Your task to perform on an android device: Search for "The Dispatcher" by John Scalzi on Goodreads Image 0: 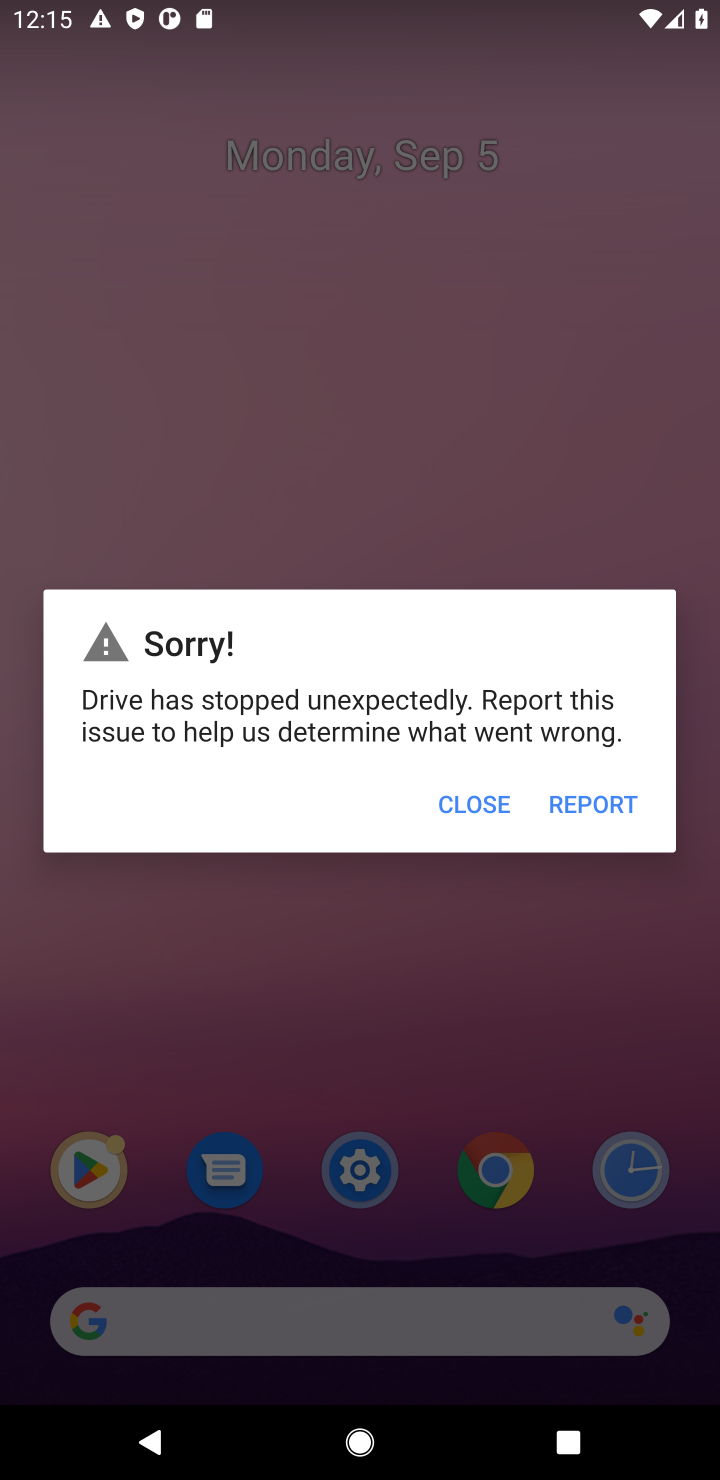
Step 0: click (469, 835)
Your task to perform on an android device: Search for "The Dispatcher" by John Scalzi on Goodreads Image 1: 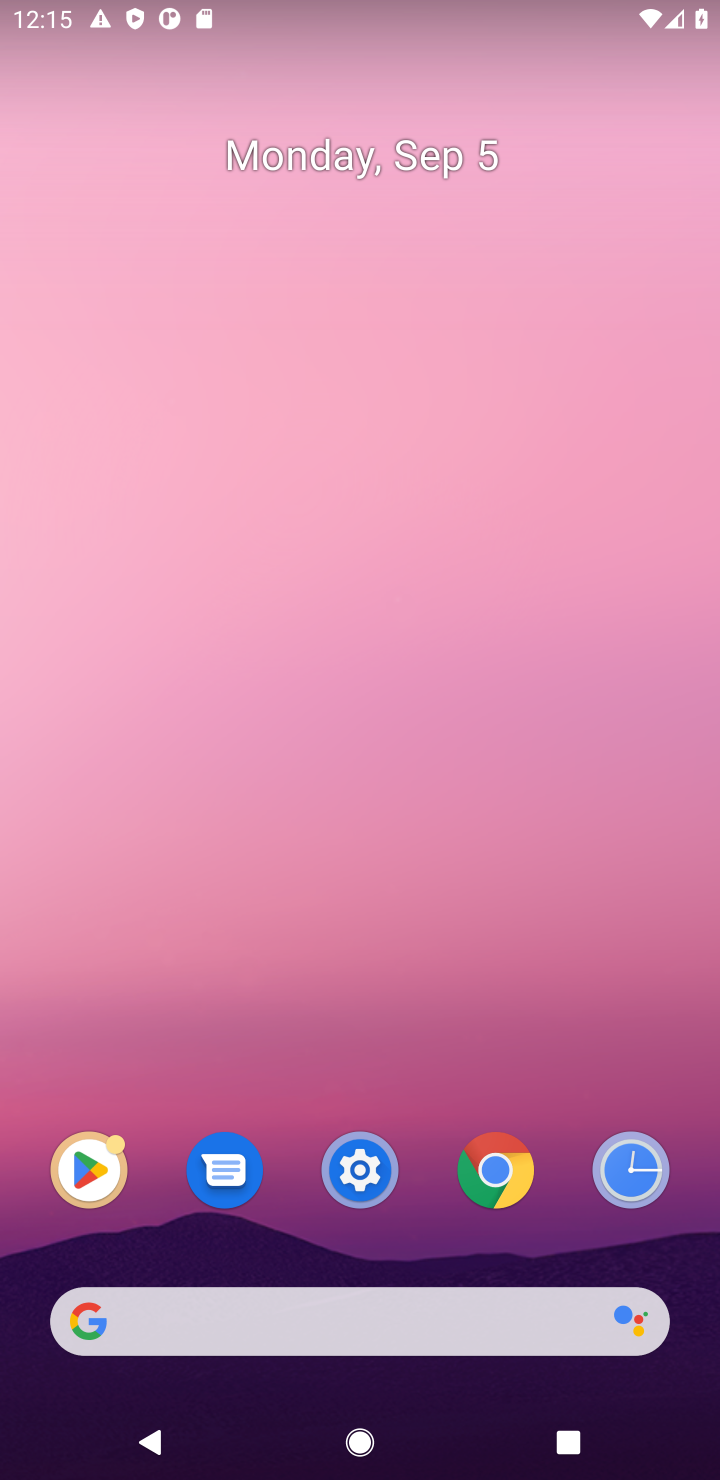
Step 1: click (353, 1326)
Your task to perform on an android device: Search for "The Dispatcher" by John Scalzi on Goodreads Image 2: 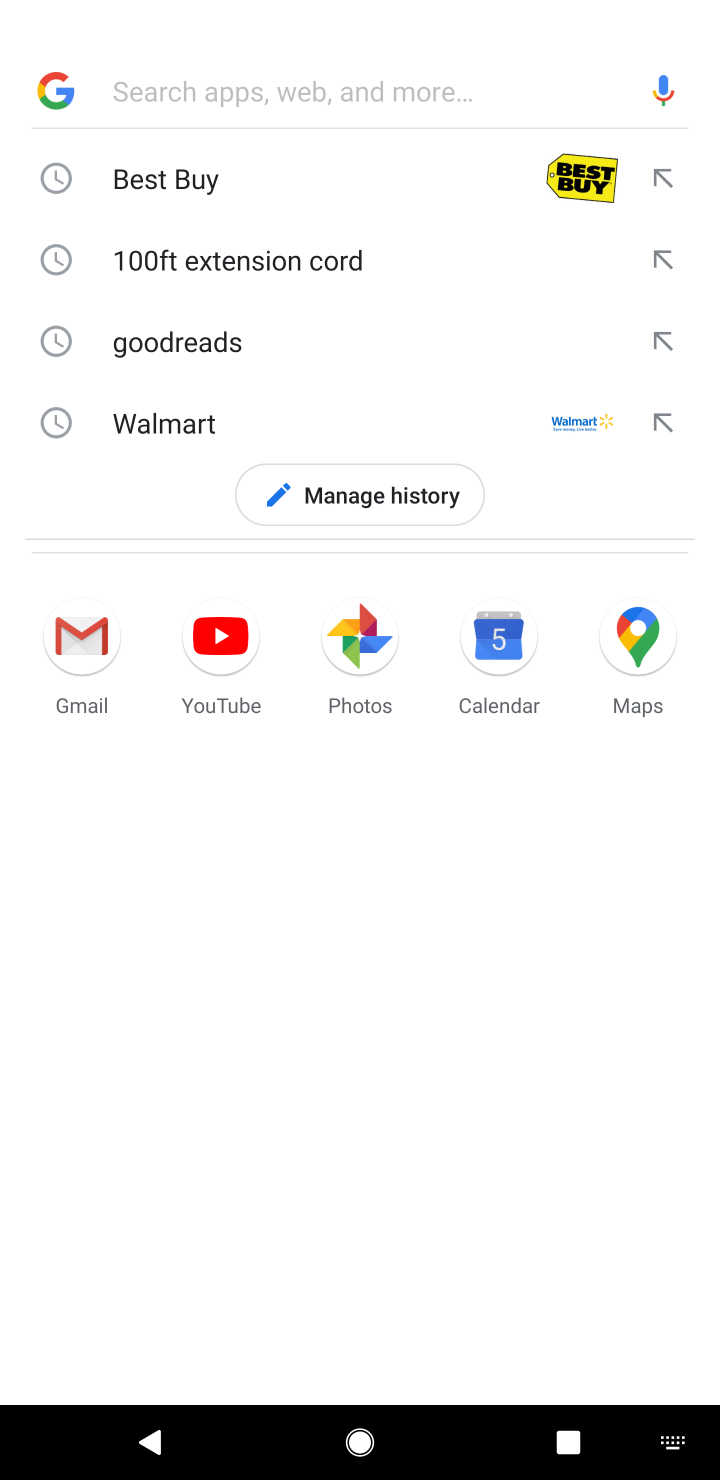
Step 2: type "Goodreads"
Your task to perform on an android device: Search for "The Dispatcher" by John Scalzi on Goodreads Image 3: 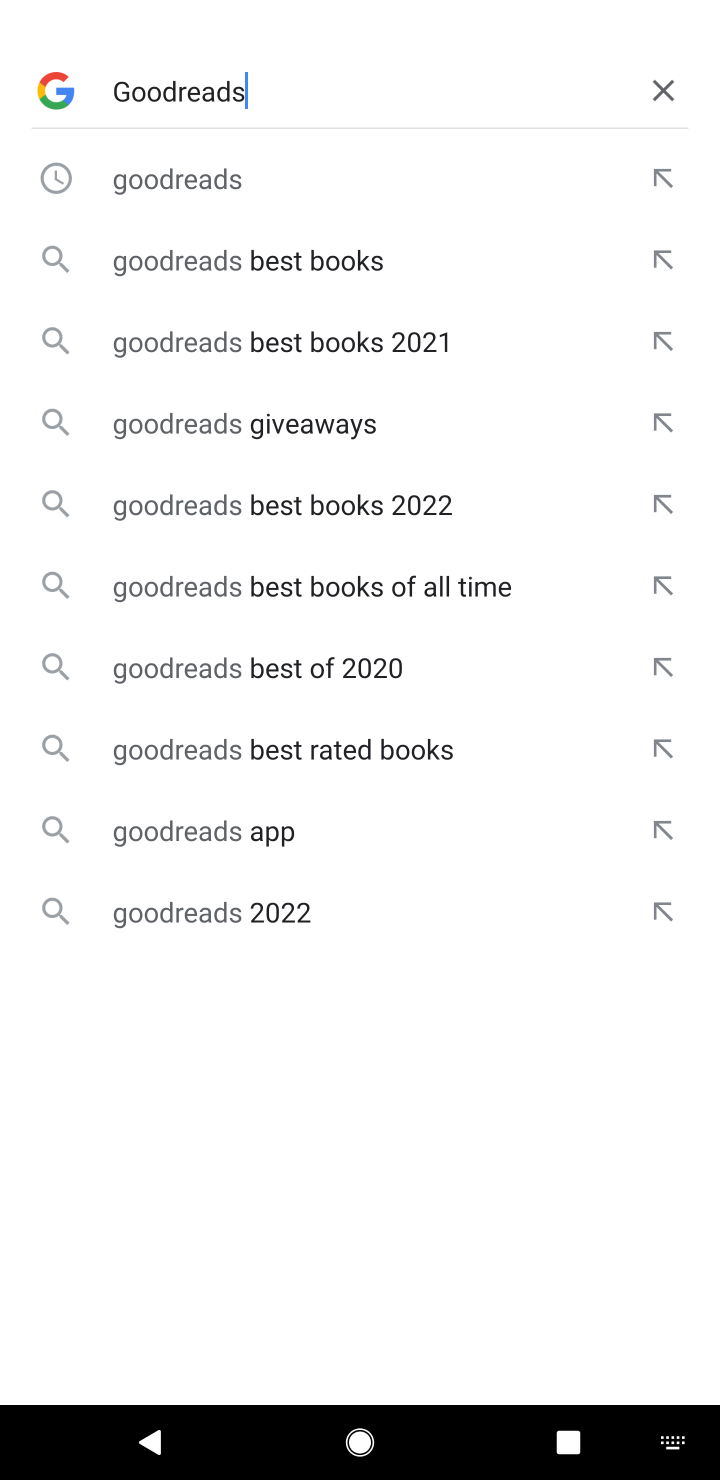
Step 3: click (287, 180)
Your task to perform on an android device: Search for "The Dispatcher" by John Scalzi on Goodreads Image 4: 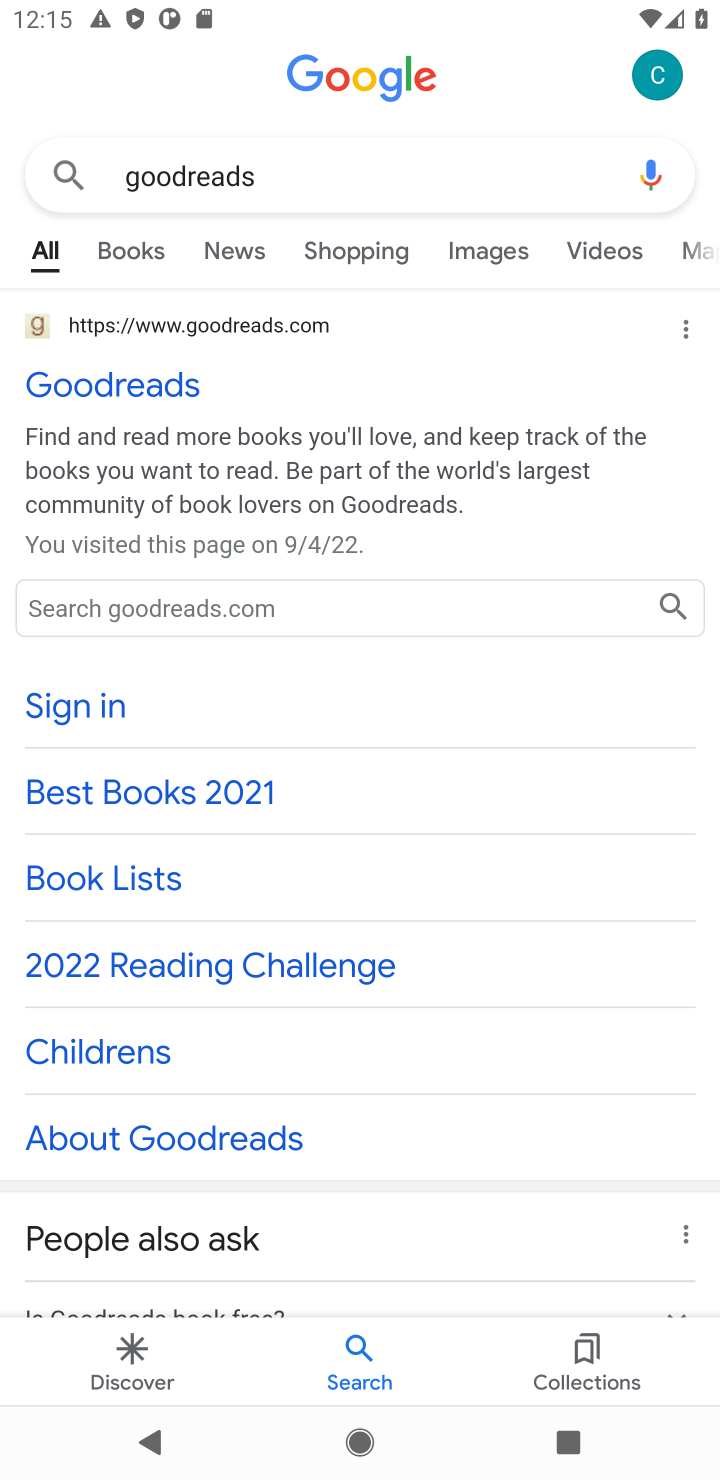
Step 4: click (106, 382)
Your task to perform on an android device: Search for "The Dispatcher" by John Scalzi on Goodreads Image 5: 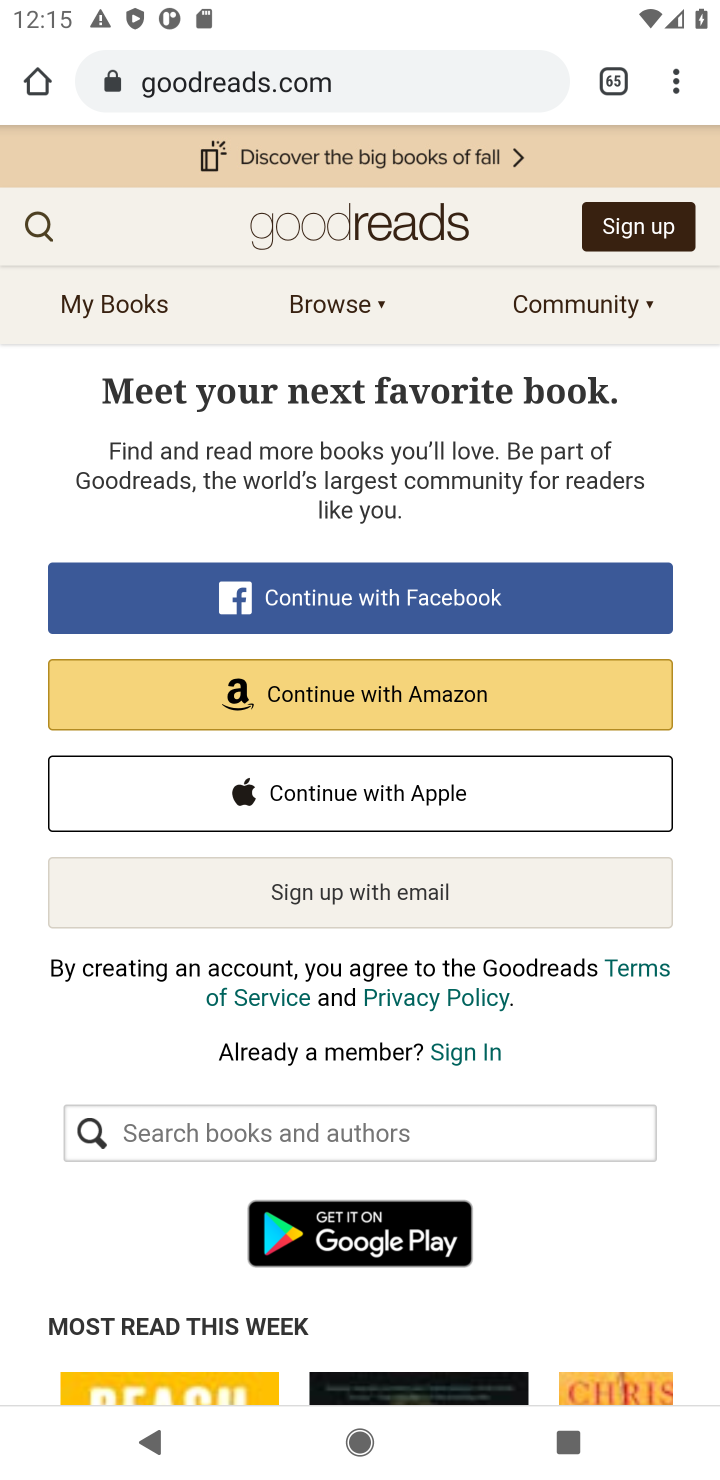
Step 5: click (37, 222)
Your task to perform on an android device: Search for "The Dispatcher" by John Scalzi on Goodreads Image 6: 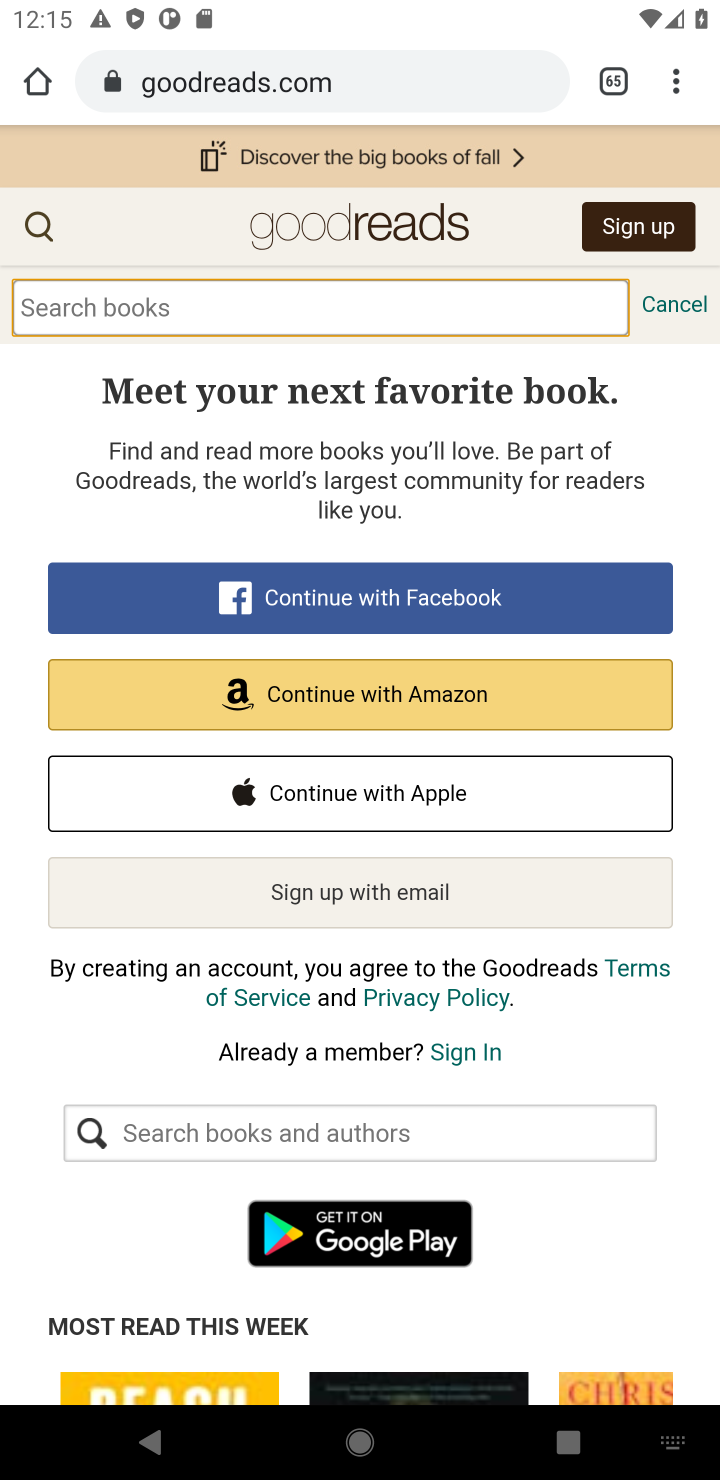
Step 6: click (156, 324)
Your task to perform on an android device: Search for "The Dispatcher" by John Scalzi on Goodreads Image 7: 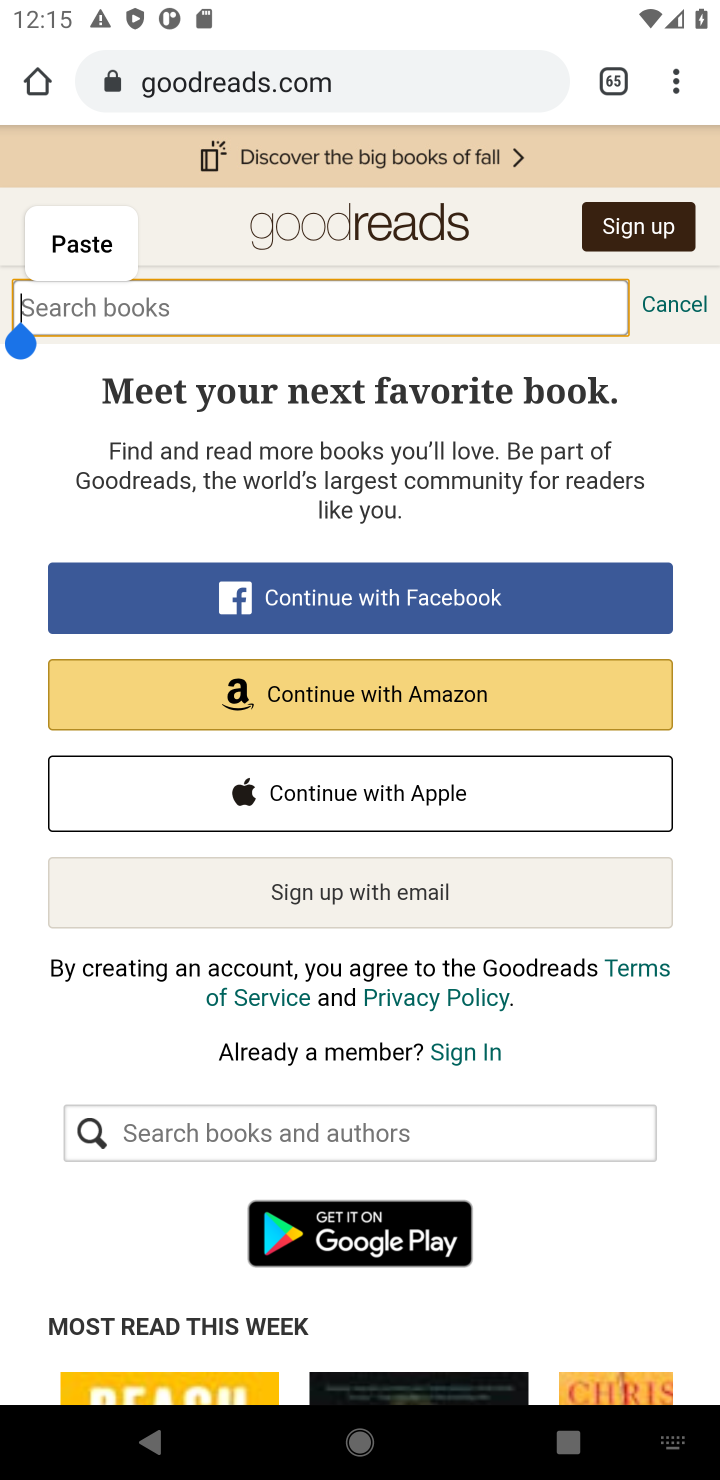
Step 7: type "The Dispatcher"
Your task to perform on an android device: Search for "The Dispatcher" by John Scalzi on Goodreads Image 8: 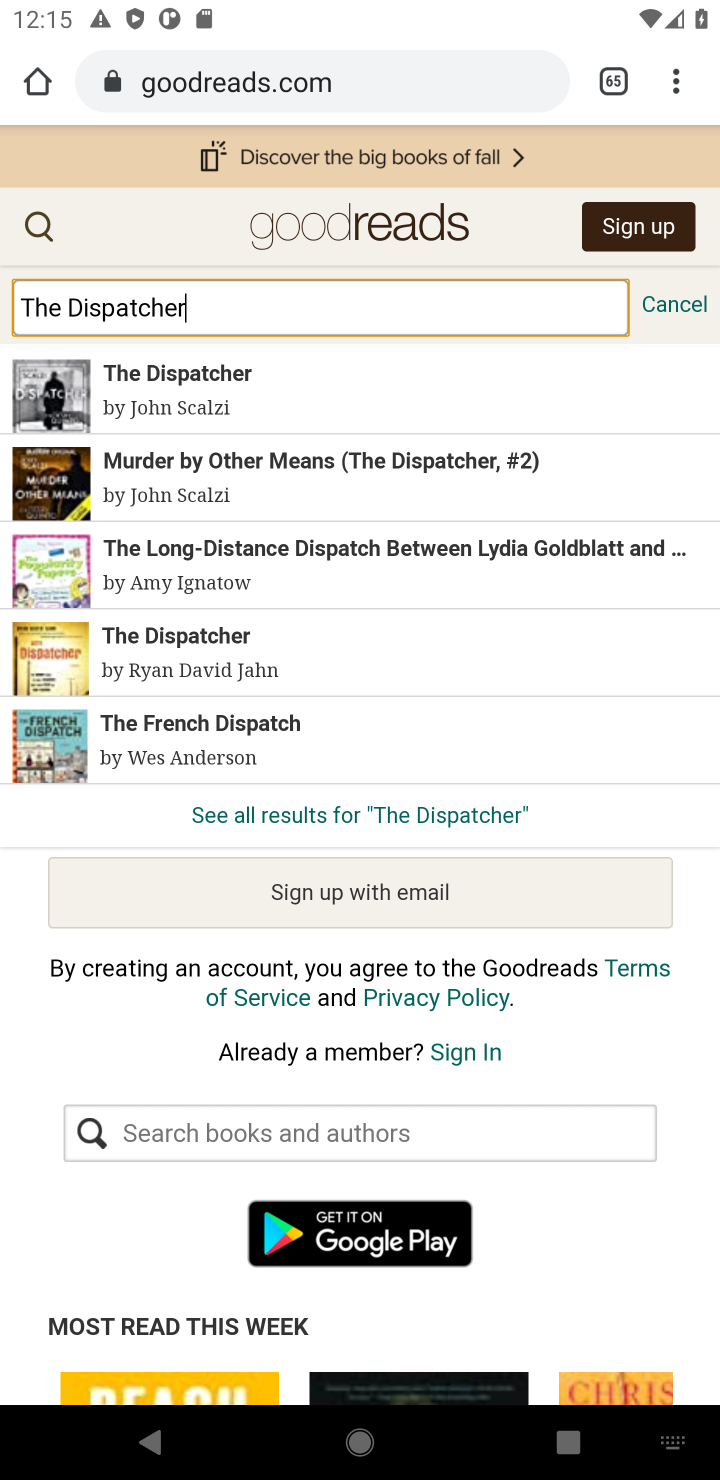
Step 8: click (289, 361)
Your task to perform on an android device: Search for "The Dispatcher" by John Scalzi on Goodreads Image 9: 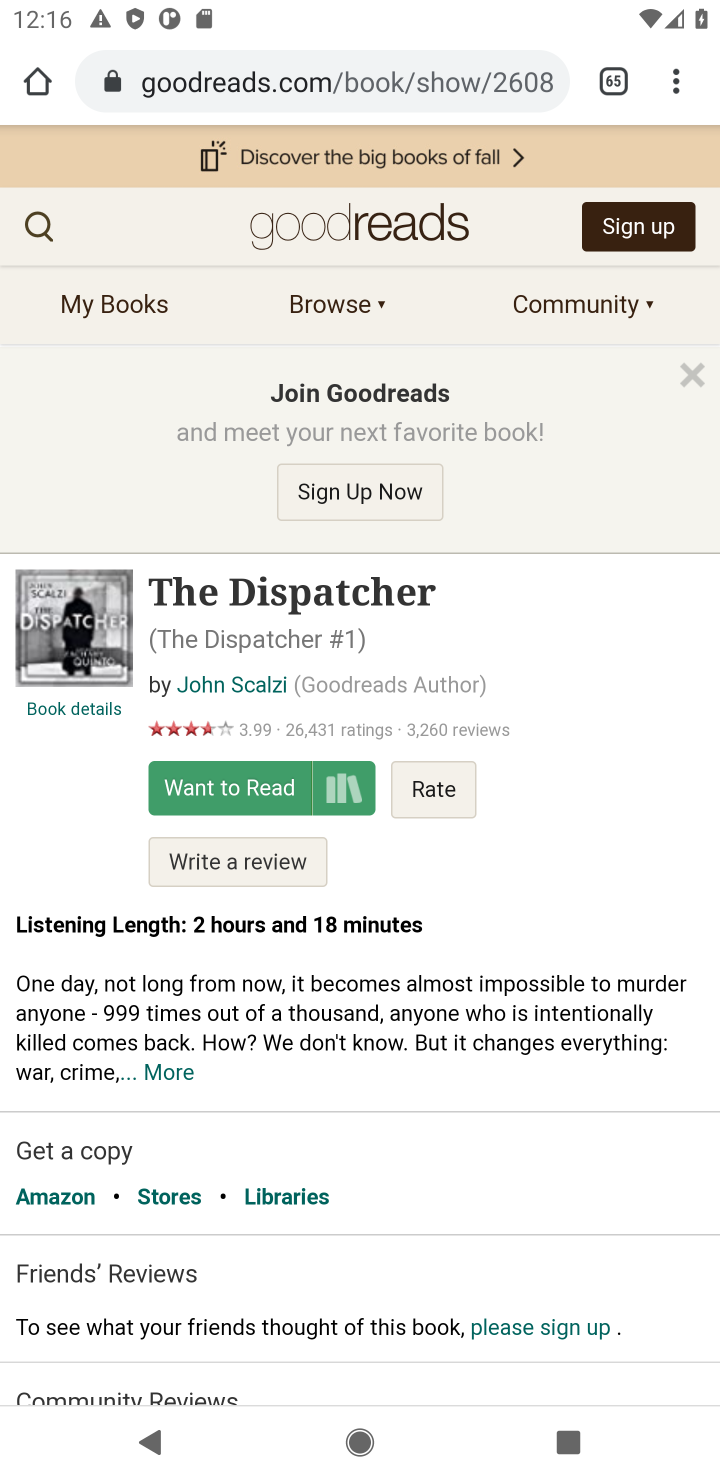
Step 9: task complete